Your task to perform on an android device: turn on wifi Image 0: 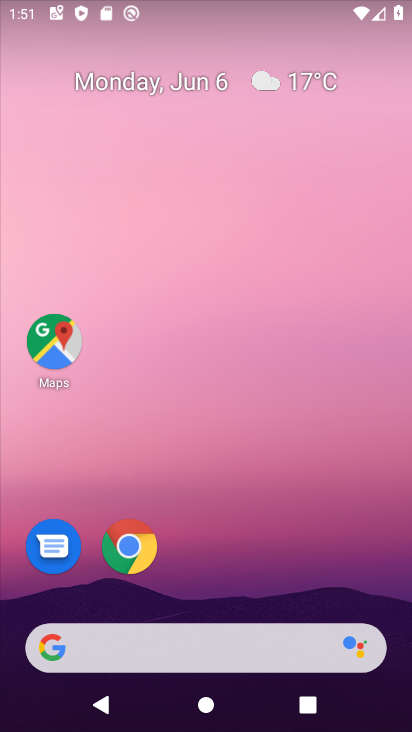
Step 0: drag from (282, 563) to (219, 79)
Your task to perform on an android device: turn on wifi Image 1: 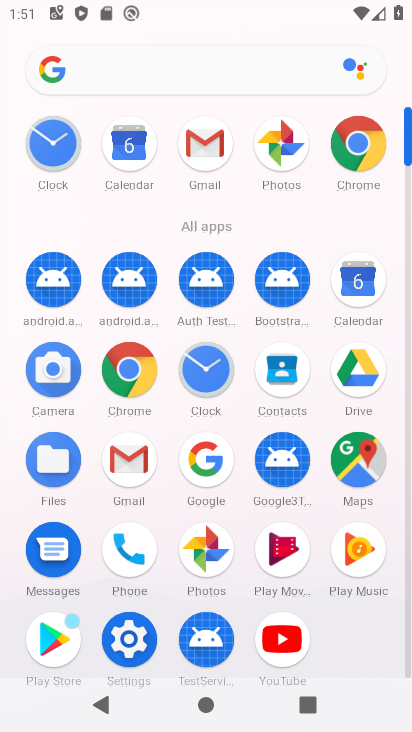
Step 1: click (125, 636)
Your task to perform on an android device: turn on wifi Image 2: 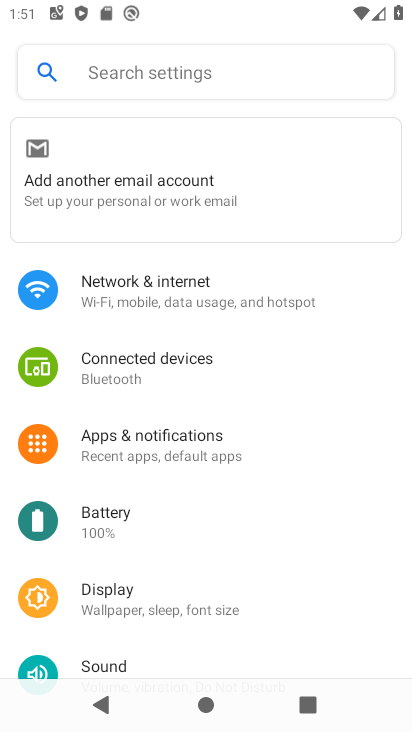
Step 2: click (163, 314)
Your task to perform on an android device: turn on wifi Image 3: 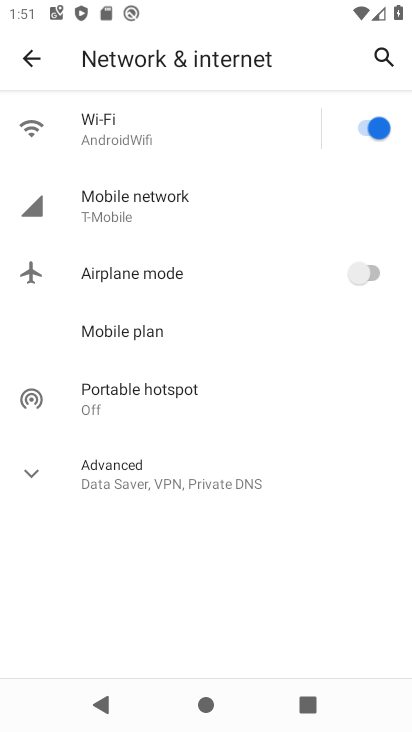
Step 3: click (135, 133)
Your task to perform on an android device: turn on wifi Image 4: 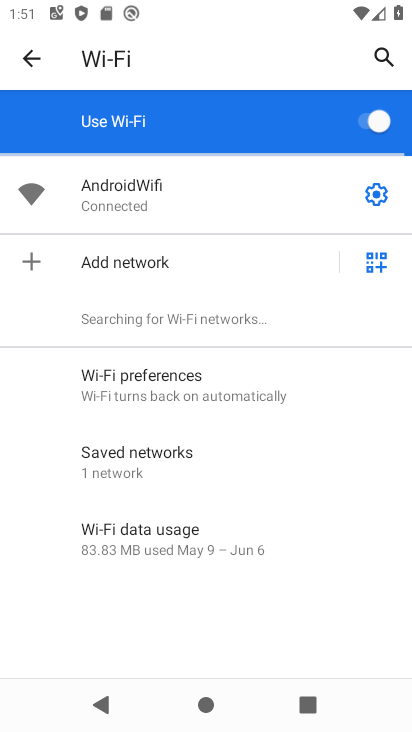
Step 4: task complete